Your task to perform on an android device: Set the phone to "Do not disturb". Image 0: 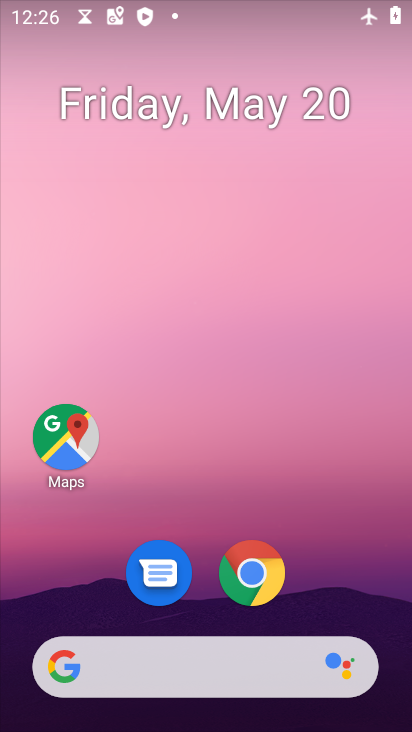
Step 0: drag from (332, 610) to (303, 99)
Your task to perform on an android device: Set the phone to "Do not disturb". Image 1: 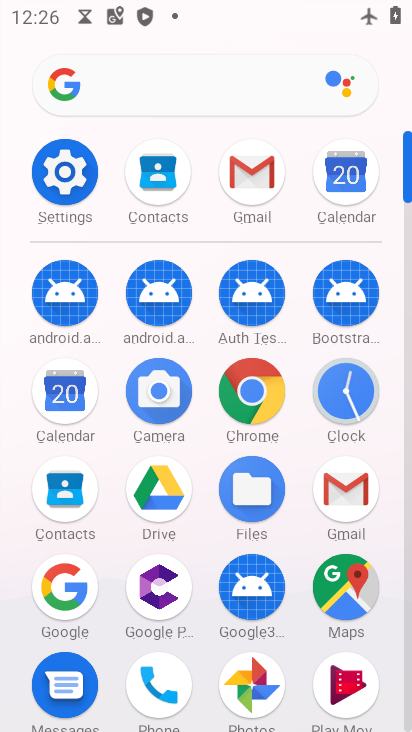
Step 1: click (60, 182)
Your task to perform on an android device: Set the phone to "Do not disturb". Image 2: 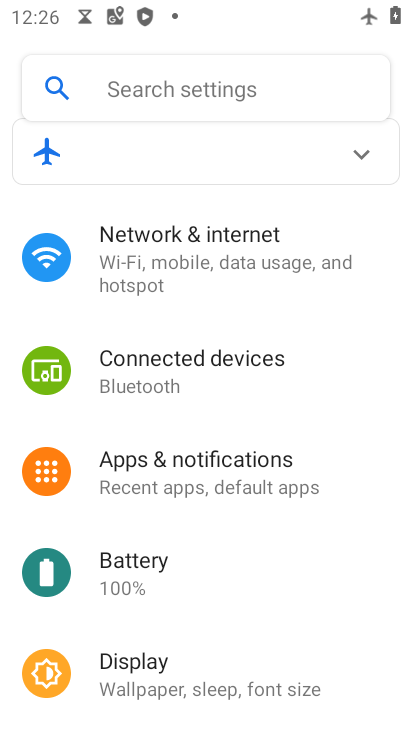
Step 2: drag from (226, 612) to (235, 353)
Your task to perform on an android device: Set the phone to "Do not disturb". Image 3: 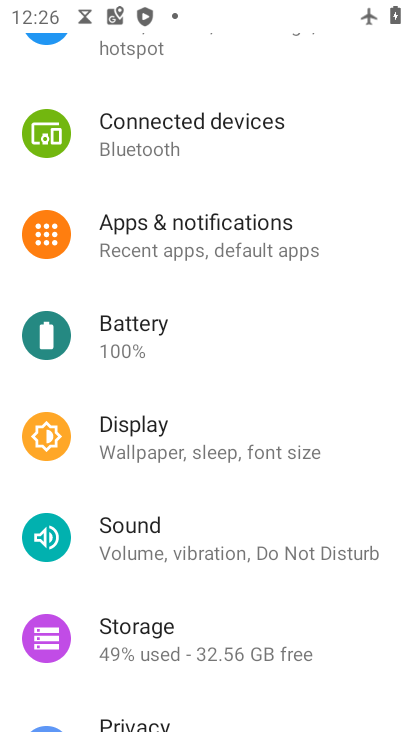
Step 3: click (123, 523)
Your task to perform on an android device: Set the phone to "Do not disturb". Image 4: 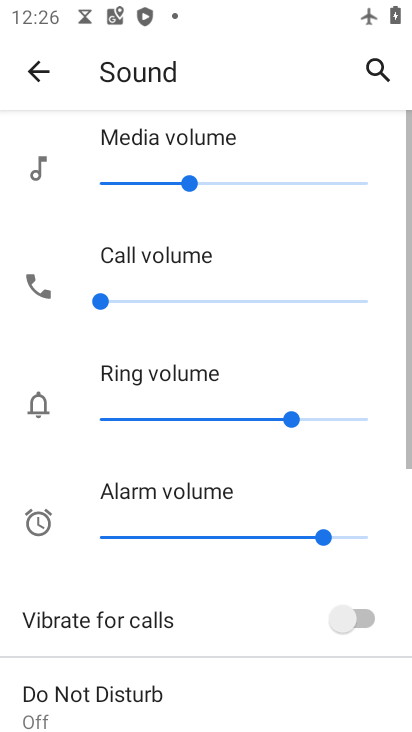
Step 4: drag from (201, 653) to (203, 319)
Your task to perform on an android device: Set the phone to "Do not disturb". Image 5: 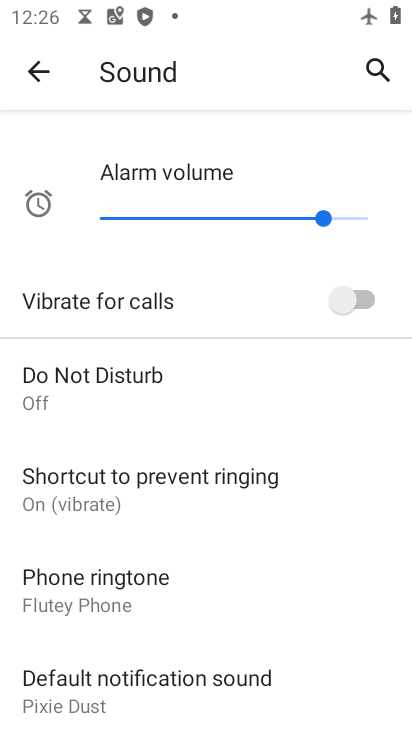
Step 5: click (143, 412)
Your task to perform on an android device: Set the phone to "Do not disturb". Image 6: 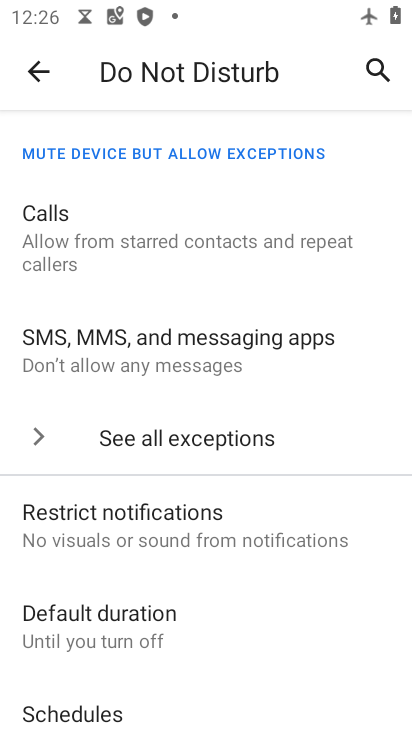
Step 6: drag from (213, 681) to (244, 324)
Your task to perform on an android device: Set the phone to "Do not disturb". Image 7: 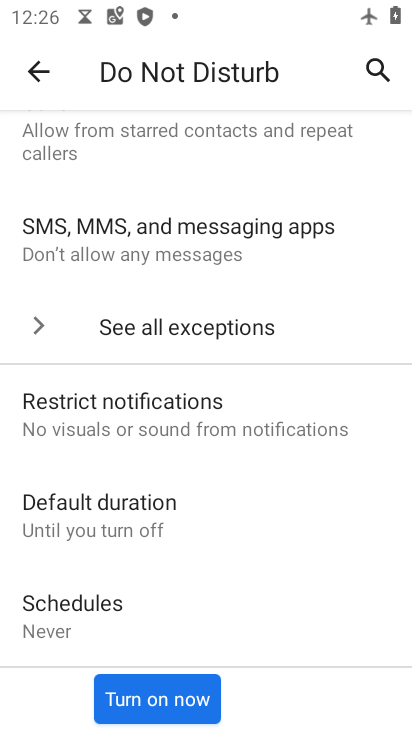
Step 7: click (134, 689)
Your task to perform on an android device: Set the phone to "Do not disturb". Image 8: 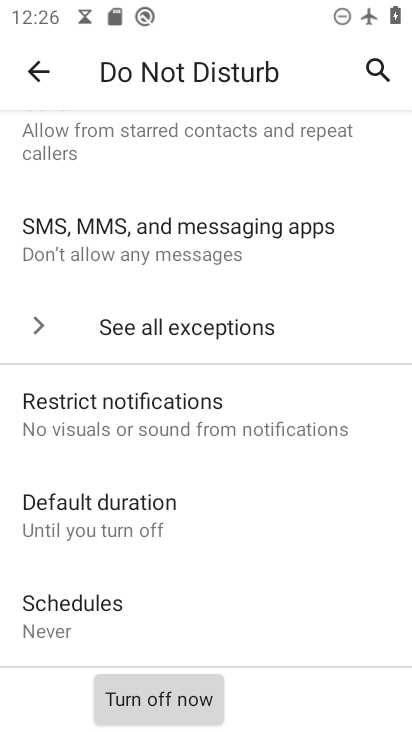
Step 8: task complete